Your task to perform on an android device: Search for vegetarian restaurants on Maps Image 0: 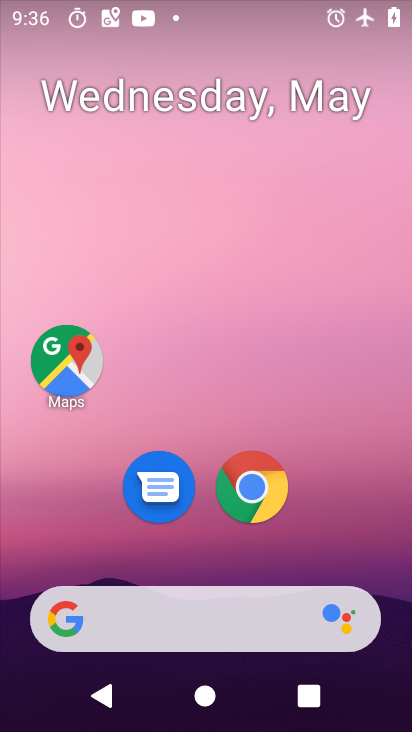
Step 0: click (62, 386)
Your task to perform on an android device: Search for vegetarian restaurants on Maps Image 1: 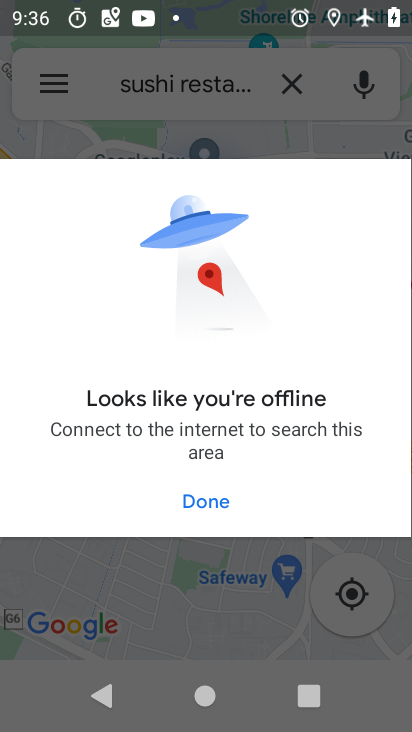
Step 1: task complete